Your task to perform on an android device: What is the news today? Image 0: 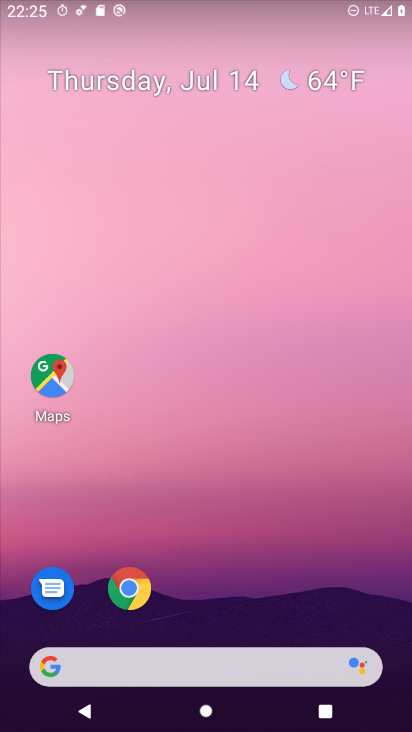
Step 0: drag from (0, 255) to (409, 488)
Your task to perform on an android device: What is the news today? Image 1: 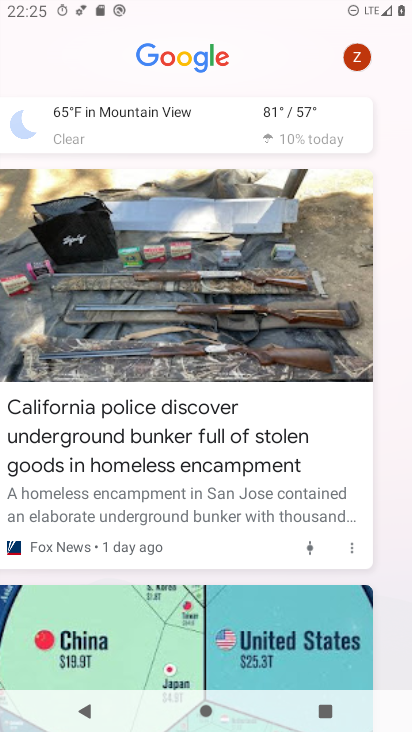
Step 1: task complete